Your task to perform on an android device: What is the recent news? Image 0: 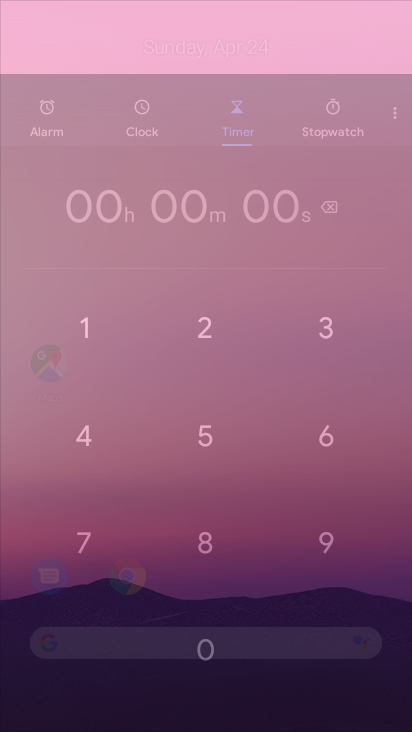
Step 0: press home button
Your task to perform on an android device: What is the recent news? Image 1: 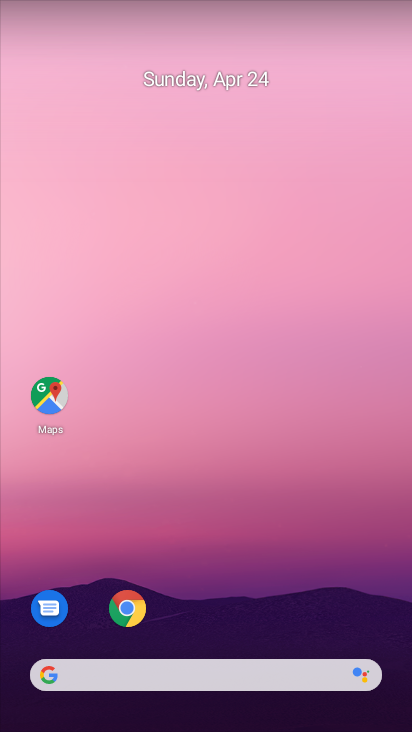
Step 1: click (50, 672)
Your task to perform on an android device: What is the recent news? Image 2: 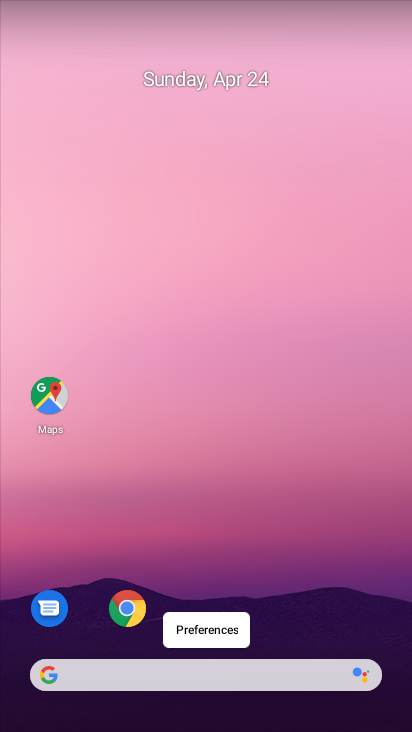
Step 2: click (50, 672)
Your task to perform on an android device: What is the recent news? Image 3: 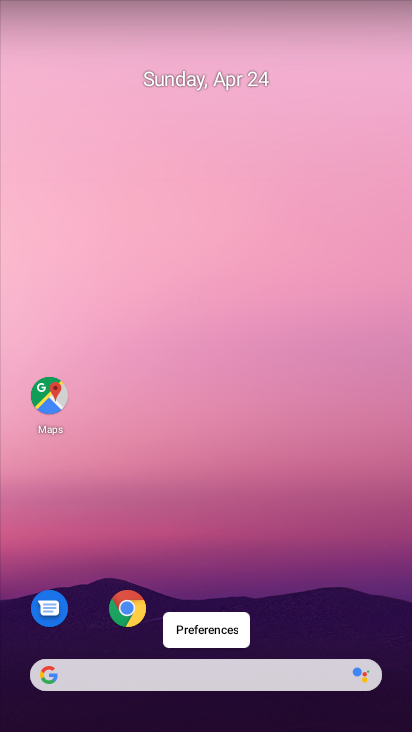
Step 3: click (83, 667)
Your task to perform on an android device: What is the recent news? Image 4: 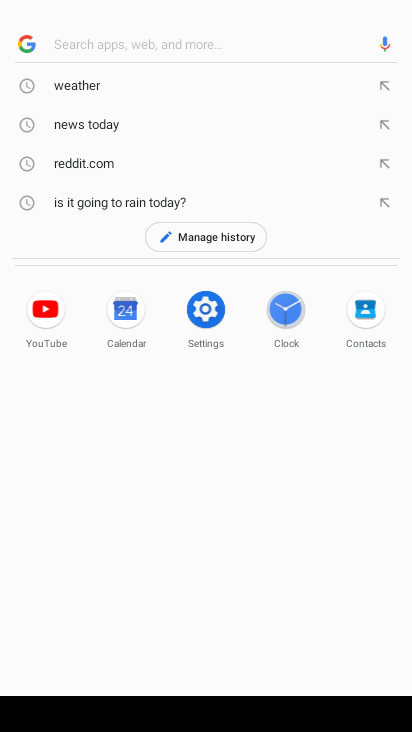
Step 4: click (21, 33)
Your task to perform on an android device: What is the recent news? Image 5: 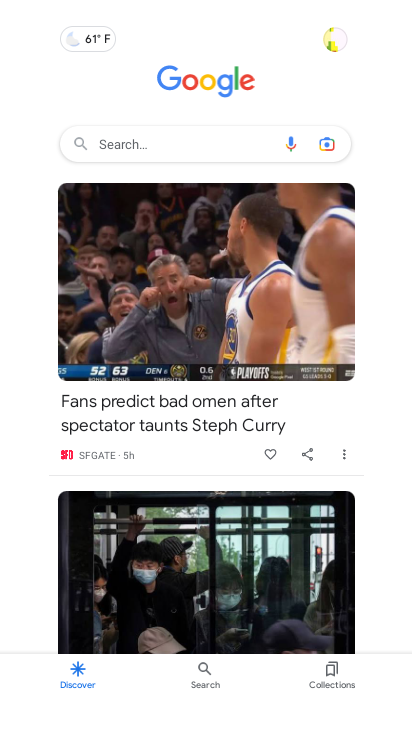
Step 5: click (173, 232)
Your task to perform on an android device: What is the recent news? Image 6: 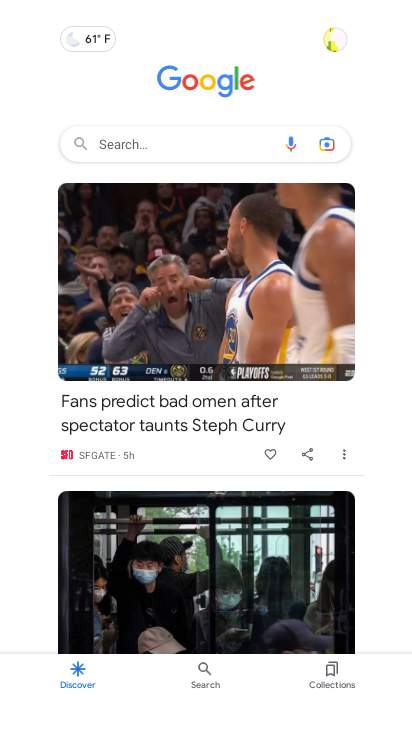
Step 6: click (391, 216)
Your task to perform on an android device: What is the recent news? Image 7: 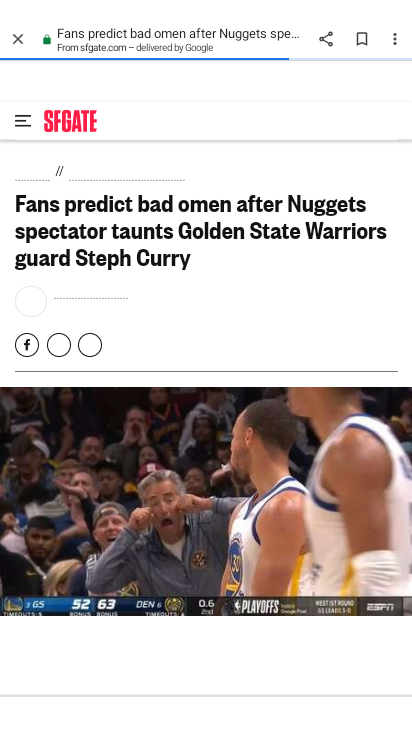
Step 7: task complete